Your task to perform on an android device: Clear the cart on bestbuy.com. Search for rayovac triple a on bestbuy.com, select the first entry, and add it to the cart. Image 0: 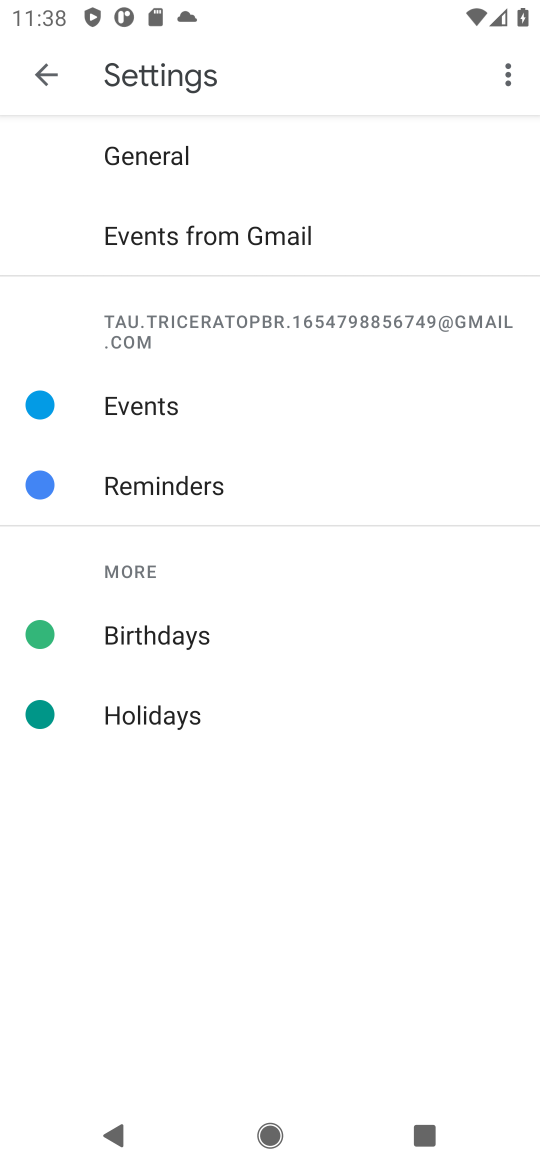
Step 0: press home button
Your task to perform on an android device: Clear the cart on bestbuy.com. Search for rayovac triple a on bestbuy.com, select the first entry, and add it to the cart. Image 1: 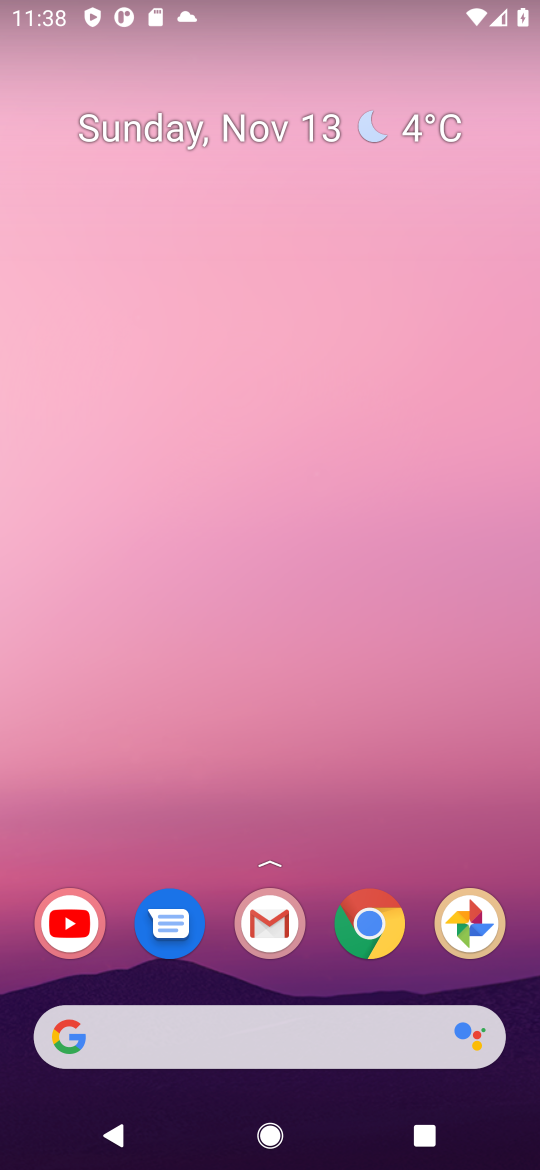
Step 1: click (365, 915)
Your task to perform on an android device: Clear the cart on bestbuy.com. Search for rayovac triple a on bestbuy.com, select the first entry, and add it to the cart. Image 2: 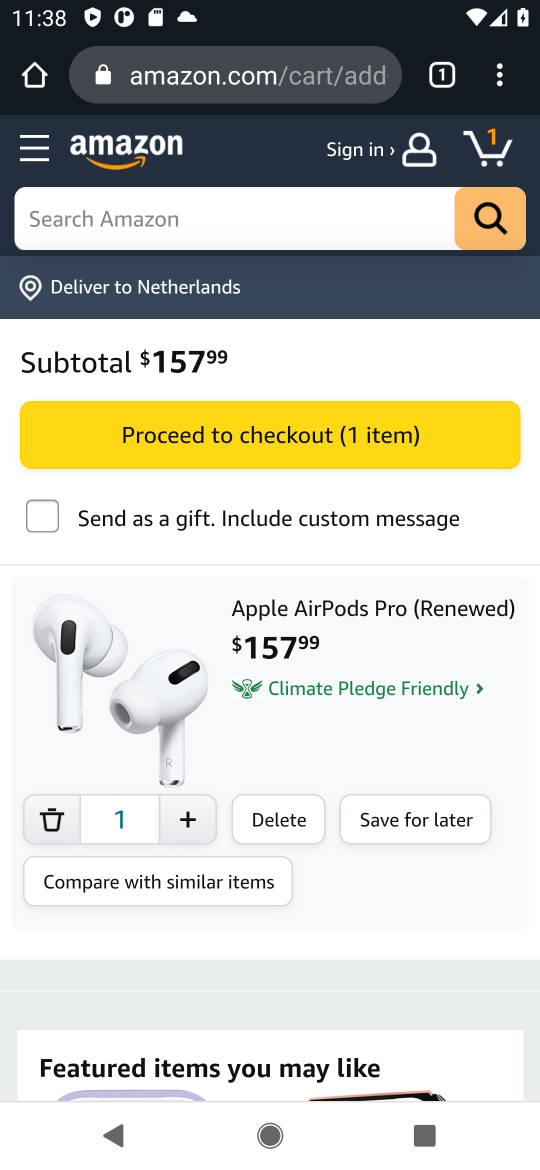
Step 2: click (270, 88)
Your task to perform on an android device: Clear the cart on bestbuy.com. Search for rayovac triple a on bestbuy.com, select the first entry, and add it to the cart. Image 3: 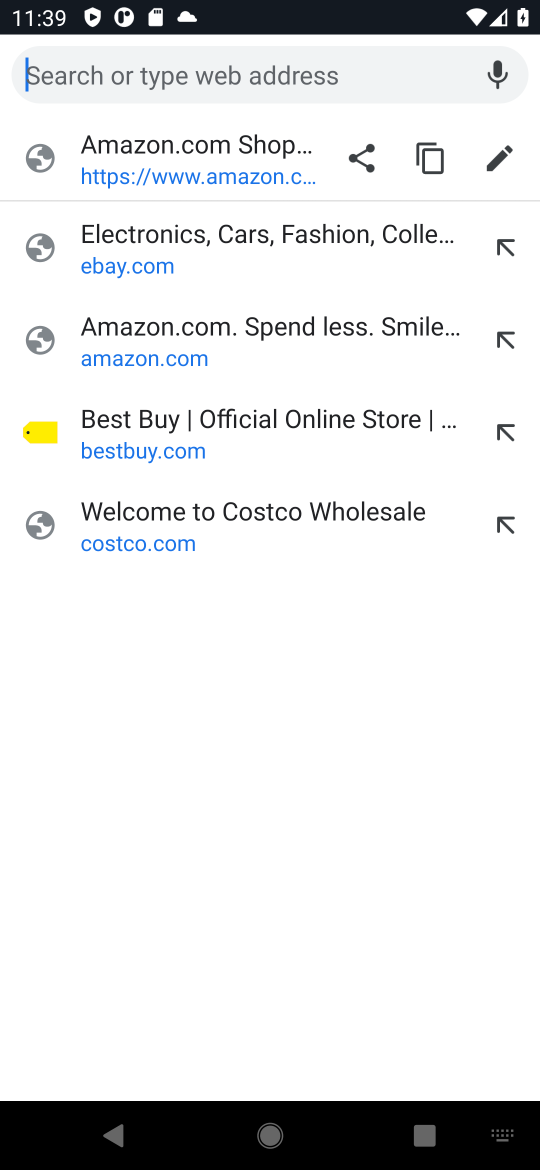
Step 3: click (142, 404)
Your task to perform on an android device: Clear the cart on bestbuy.com. Search for rayovac triple a on bestbuy.com, select the first entry, and add it to the cart. Image 4: 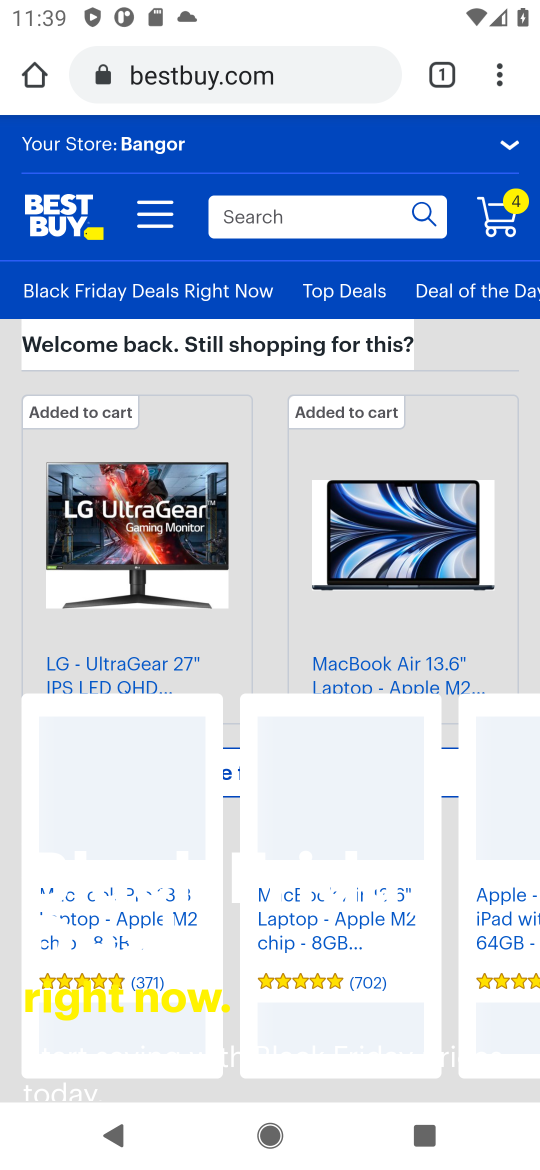
Step 4: click (496, 214)
Your task to perform on an android device: Clear the cart on bestbuy.com. Search for rayovac triple a on bestbuy.com, select the first entry, and add it to the cart. Image 5: 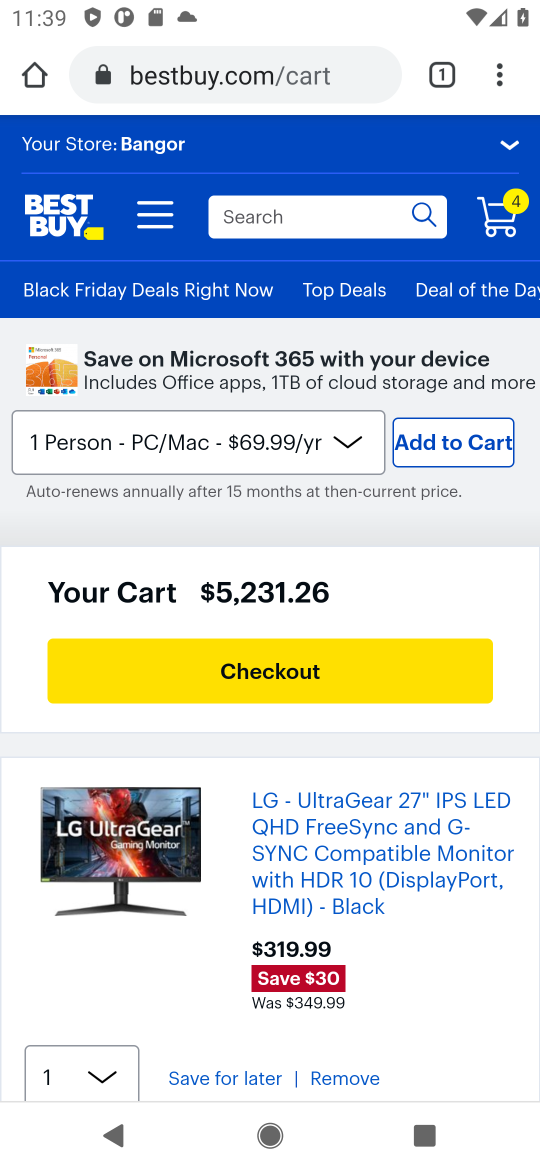
Step 5: drag from (462, 761) to (448, 401)
Your task to perform on an android device: Clear the cart on bestbuy.com. Search for rayovac triple a on bestbuy.com, select the first entry, and add it to the cart. Image 6: 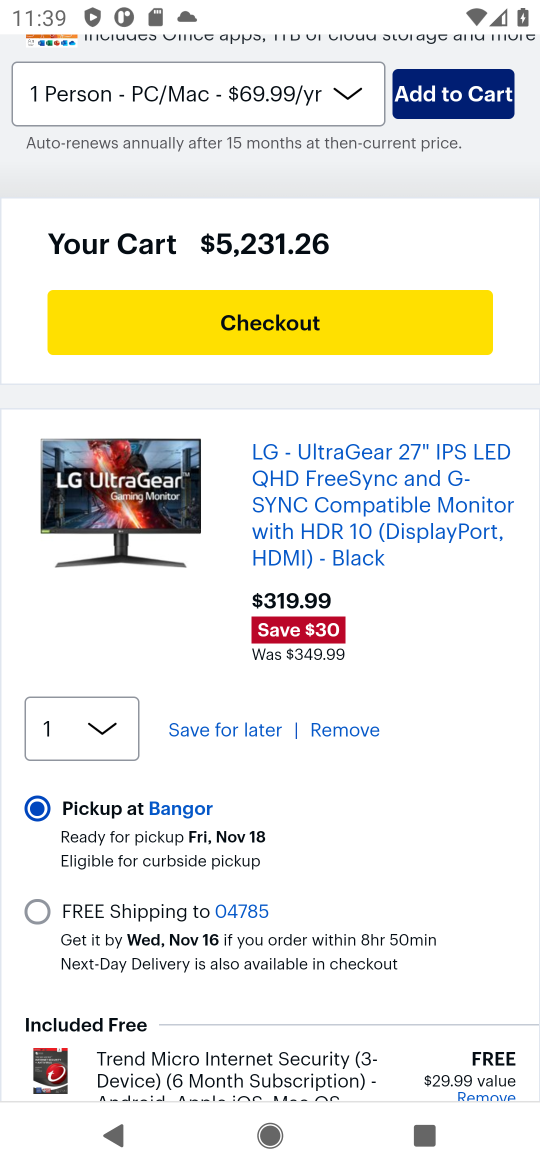
Step 6: click (349, 728)
Your task to perform on an android device: Clear the cart on bestbuy.com. Search for rayovac triple a on bestbuy.com, select the first entry, and add it to the cart. Image 7: 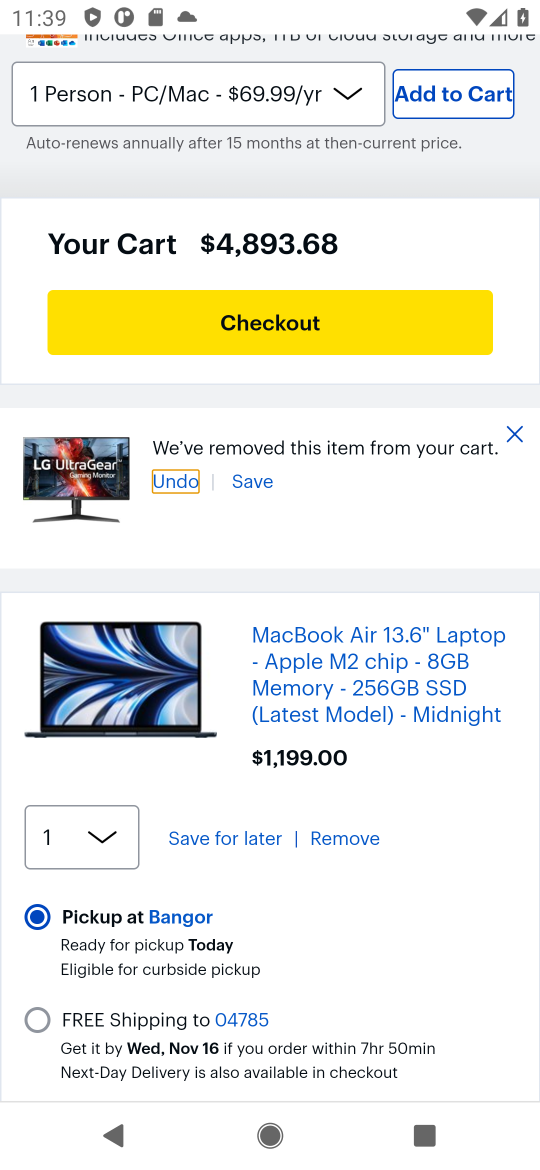
Step 7: click (339, 840)
Your task to perform on an android device: Clear the cart on bestbuy.com. Search for rayovac triple a on bestbuy.com, select the first entry, and add it to the cart. Image 8: 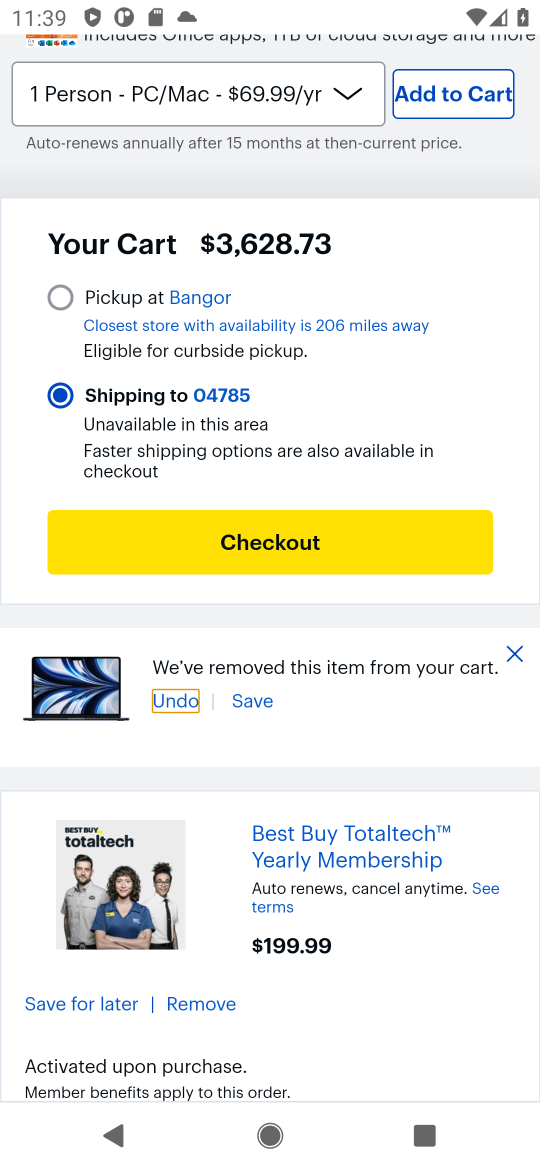
Step 8: drag from (424, 950) to (388, 142)
Your task to perform on an android device: Clear the cart on bestbuy.com. Search for rayovac triple a on bestbuy.com, select the first entry, and add it to the cart. Image 9: 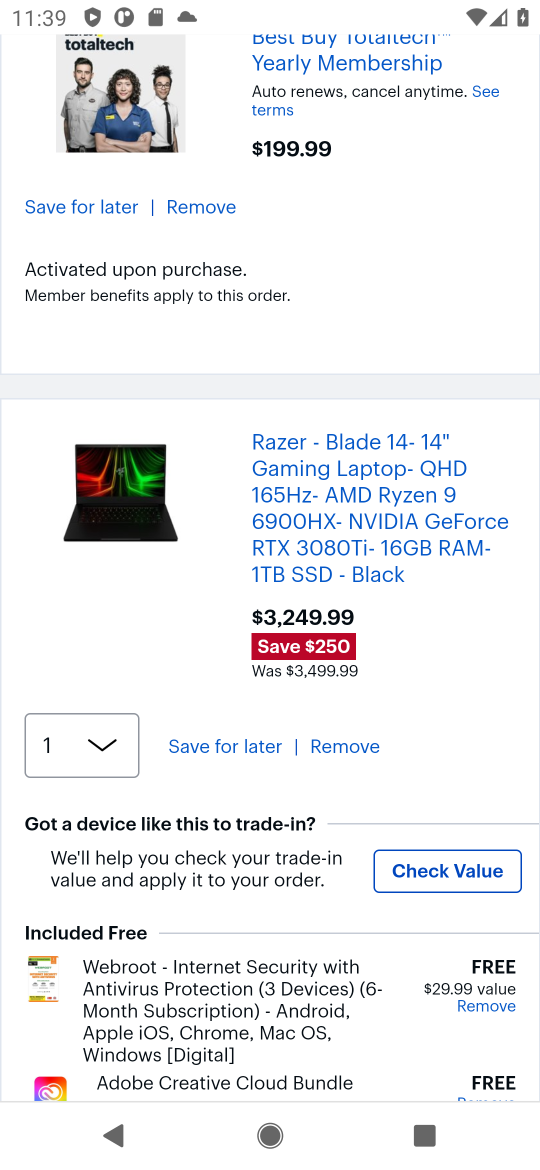
Step 9: click (350, 746)
Your task to perform on an android device: Clear the cart on bestbuy.com. Search for rayovac triple a on bestbuy.com, select the first entry, and add it to the cart. Image 10: 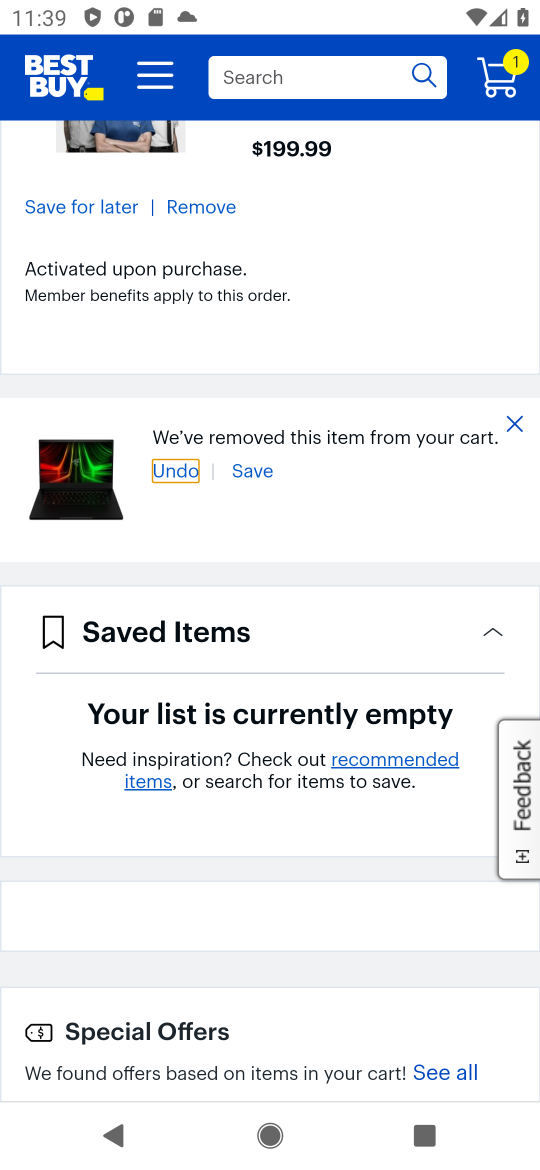
Step 10: click (217, 211)
Your task to perform on an android device: Clear the cart on bestbuy.com. Search for rayovac triple a on bestbuy.com, select the first entry, and add it to the cart. Image 11: 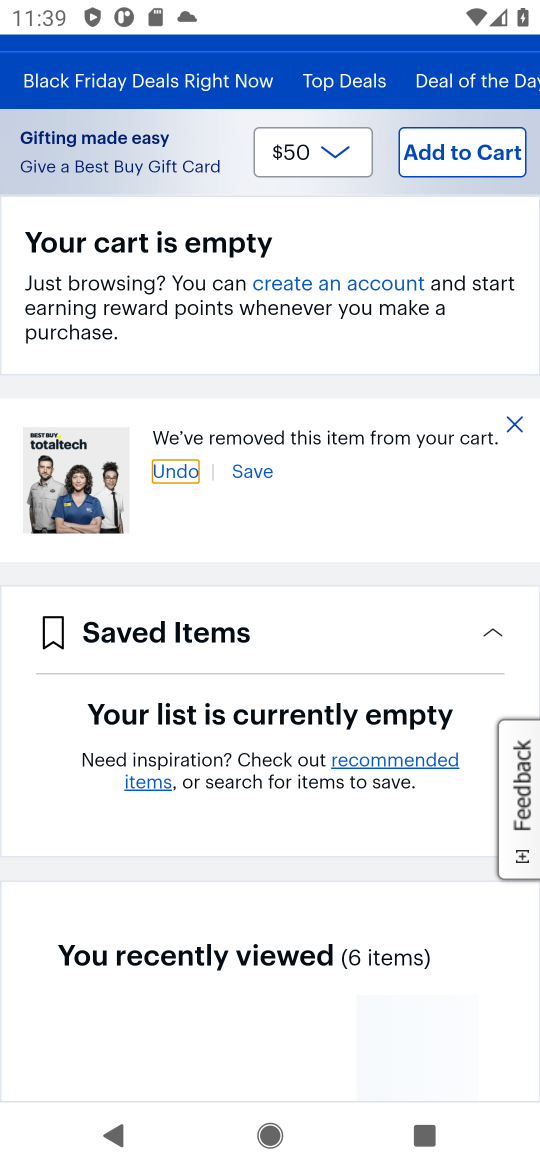
Step 11: click (507, 417)
Your task to perform on an android device: Clear the cart on bestbuy.com. Search for rayovac triple a on bestbuy.com, select the first entry, and add it to the cart. Image 12: 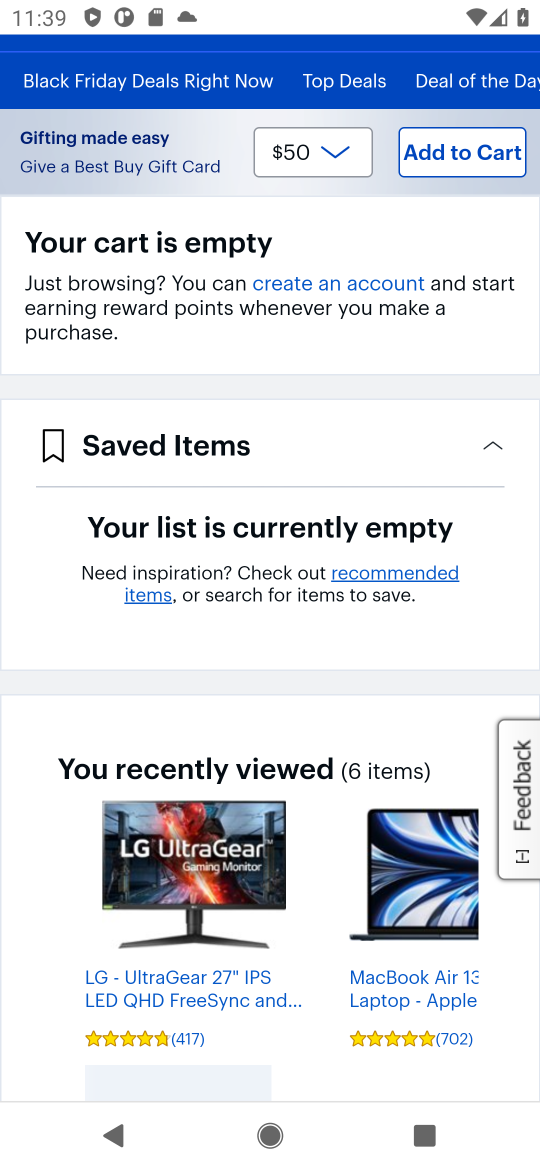
Step 12: drag from (442, 396) to (470, 1019)
Your task to perform on an android device: Clear the cart on bestbuy.com. Search for rayovac triple a on bestbuy.com, select the first entry, and add it to the cart. Image 13: 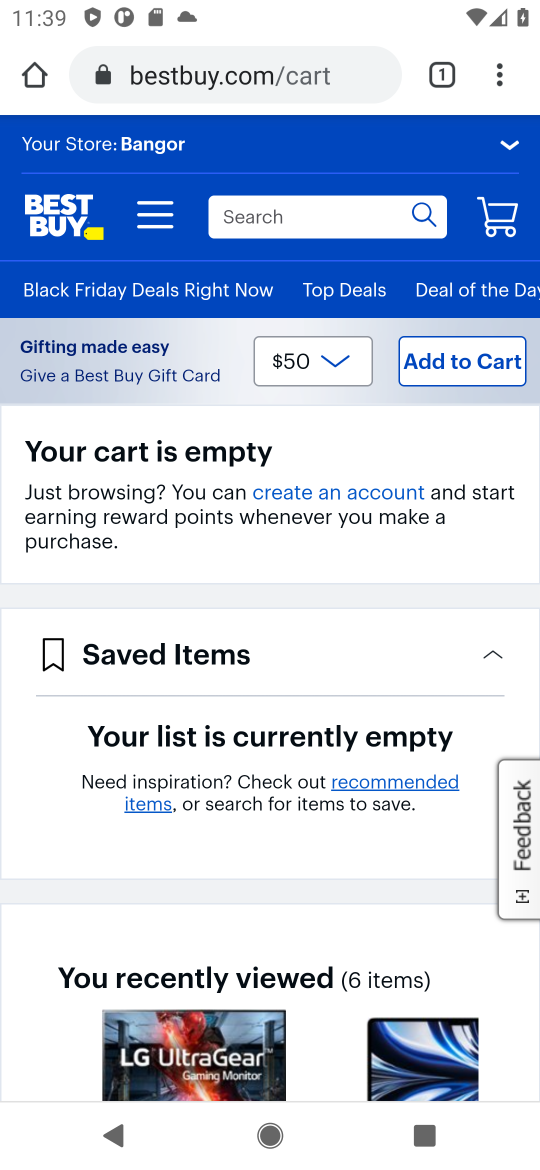
Step 13: click (300, 212)
Your task to perform on an android device: Clear the cart on bestbuy.com. Search for rayovac triple a on bestbuy.com, select the first entry, and add it to the cart. Image 14: 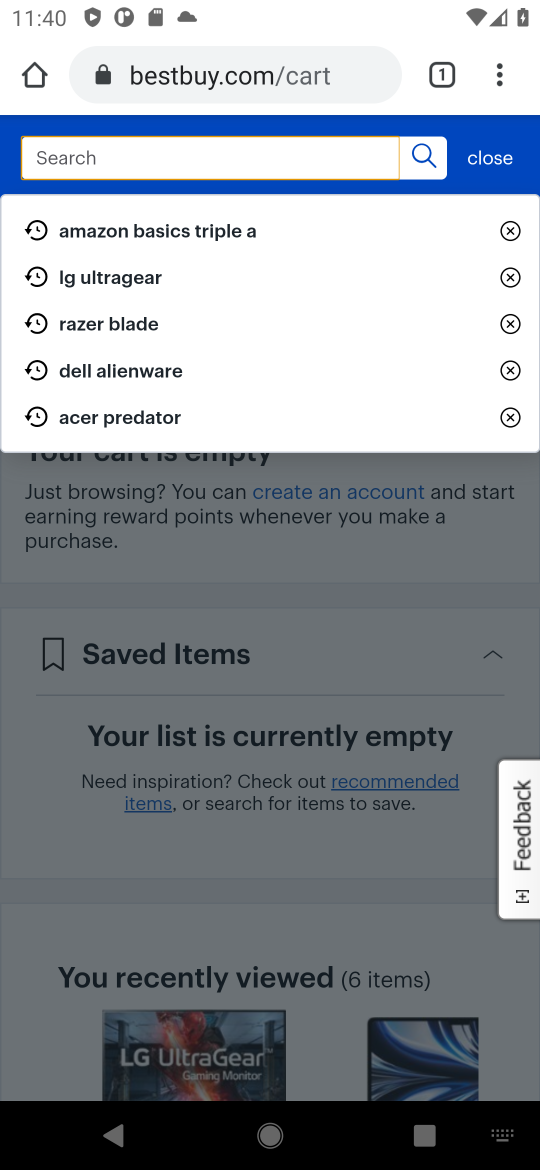
Step 14: press enter
Your task to perform on an android device: Clear the cart on bestbuy.com. Search for rayovac triple a on bestbuy.com, select the first entry, and add it to the cart. Image 15: 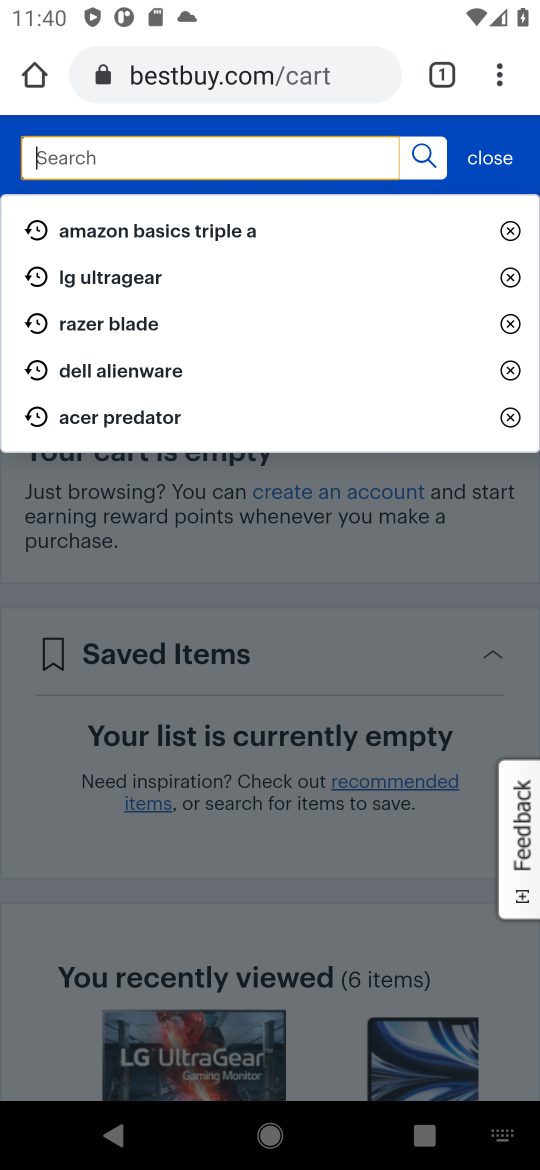
Step 15: type "rayovac triple a"
Your task to perform on an android device: Clear the cart on bestbuy.com. Search for rayovac triple a on bestbuy.com, select the first entry, and add it to the cart. Image 16: 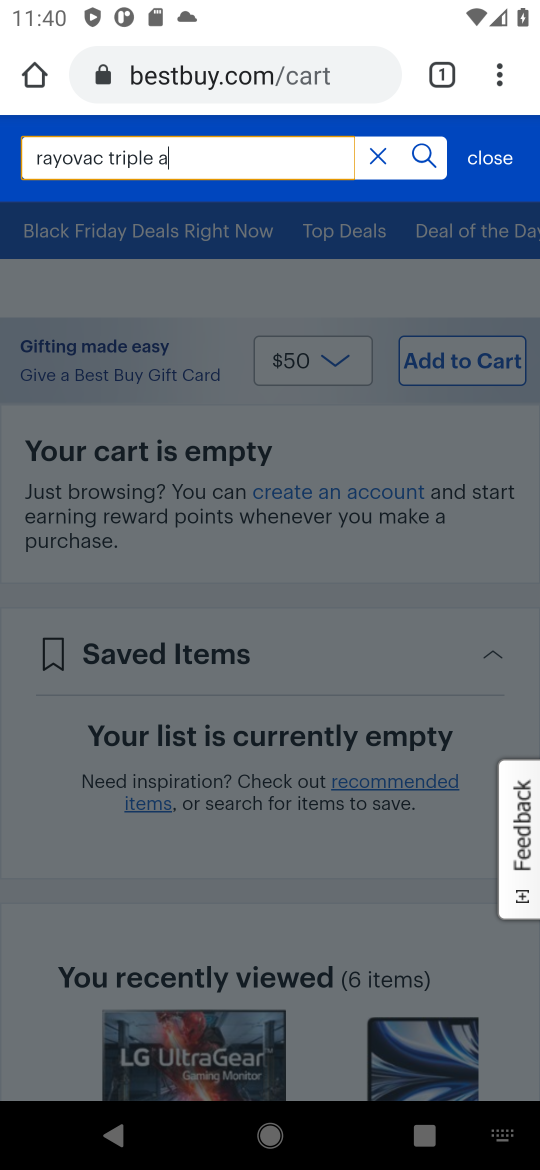
Step 16: click (421, 155)
Your task to perform on an android device: Clear the cart on bestbuy.com. Search for rayovac triple a on bestbuy.com, select the first entry, and add it to the cart. Image 17: 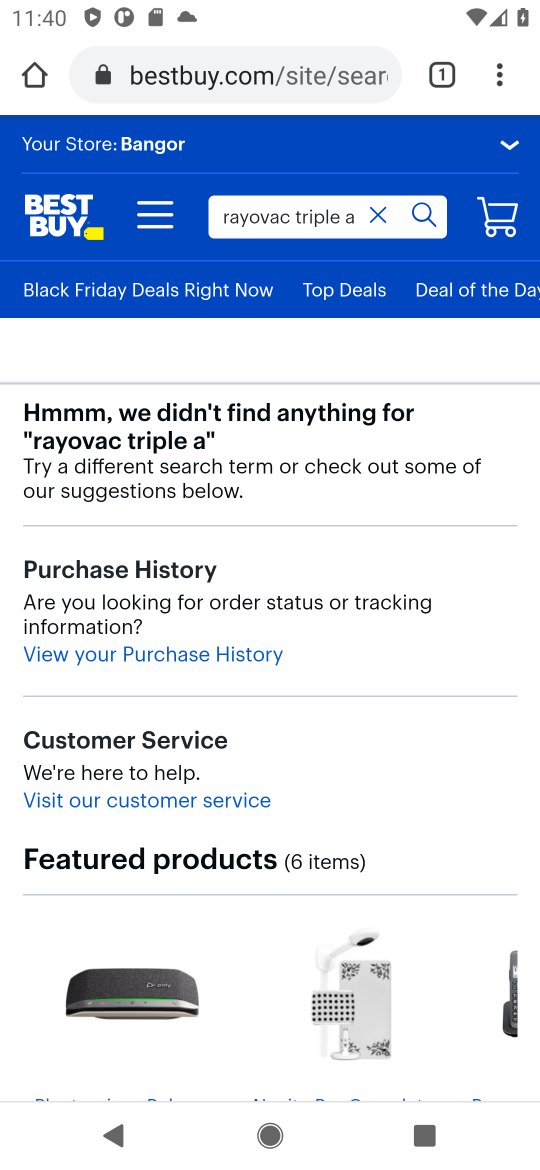
Step 17: task complete